Your task to perform on an android device: Add "razer kraken" to the cart on target, then select checkout. Image 0: 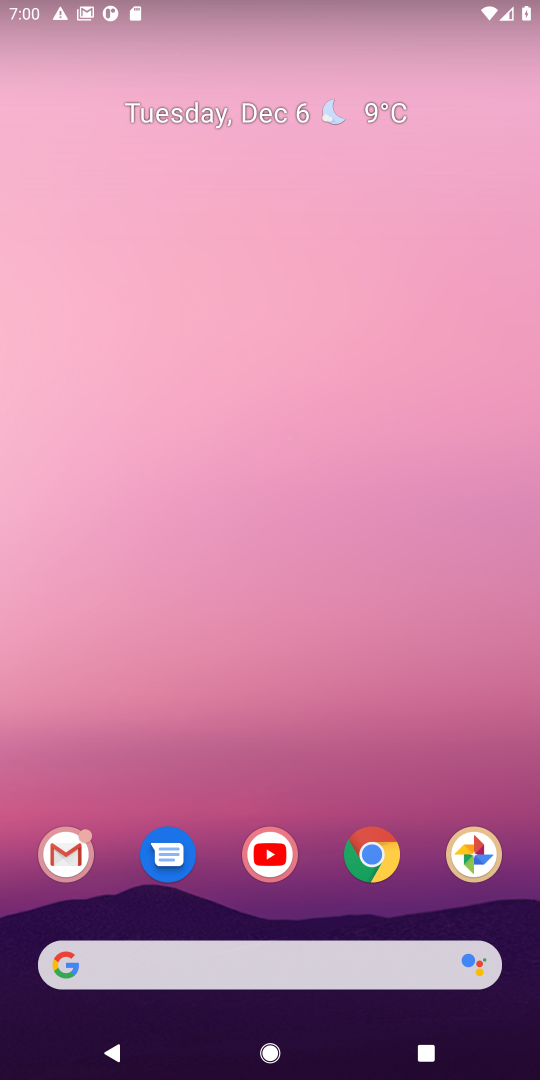
Step 0: click (353, 858)
Your task to perform on an android device: Add "razer kraken" to the cart on target, then select checkout. Image 1: 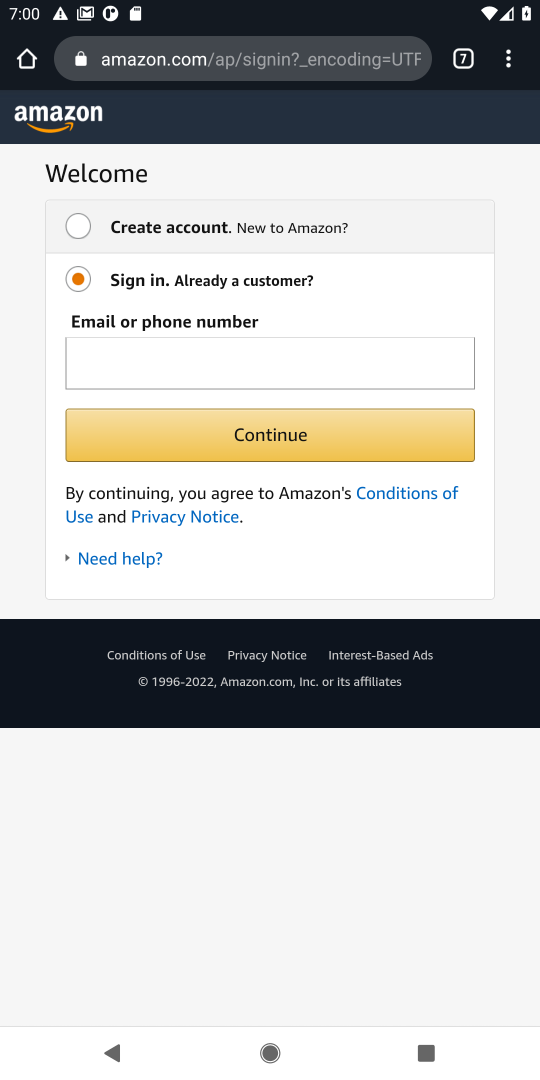
Step 1: click (469, 55)
Your task to perform on an android device: Add "razer kraken" to the cart on target, then select checkout. Image 2: 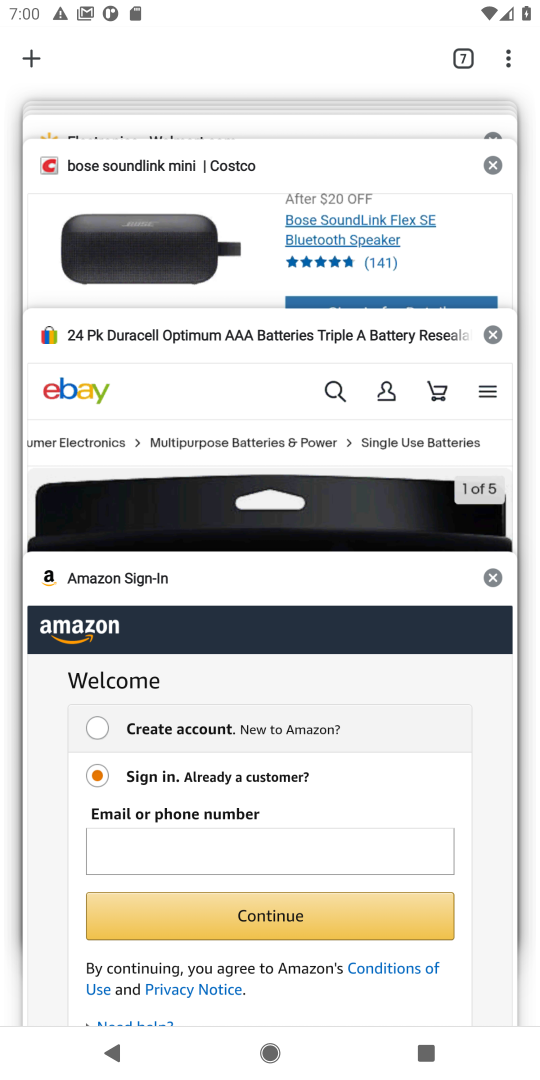
Step 2: drag from (185, 157) to (171, 384)
Your task to perform on an android device: Add "razer kraken" to the cart on target, then select checkout. Image 3: 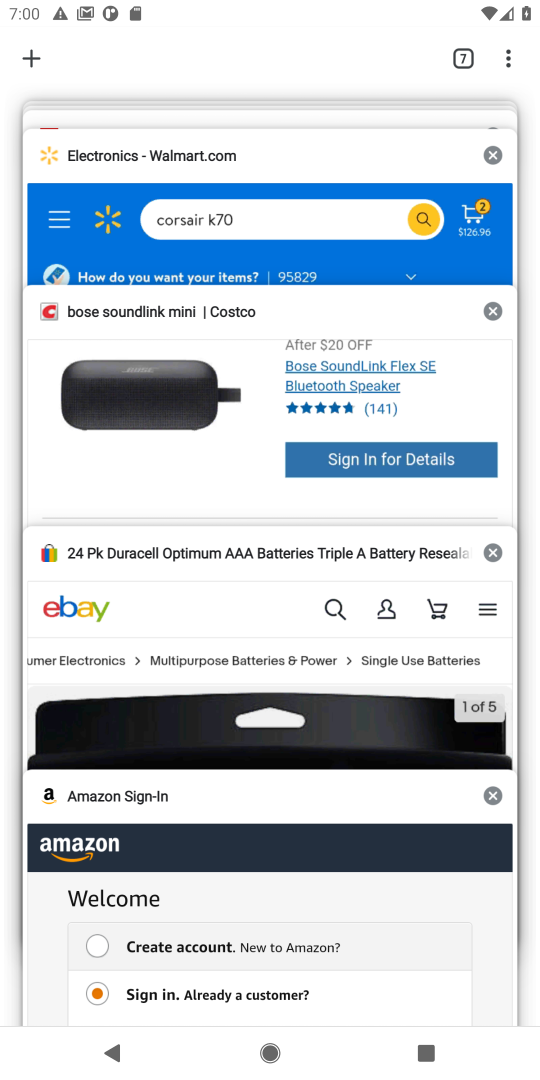
Step 3: drag from (217, 179) to (145, 450)
Your task to perform on an android device: Add "razer kraken" to the cart on target, then select checkout. Image 4: 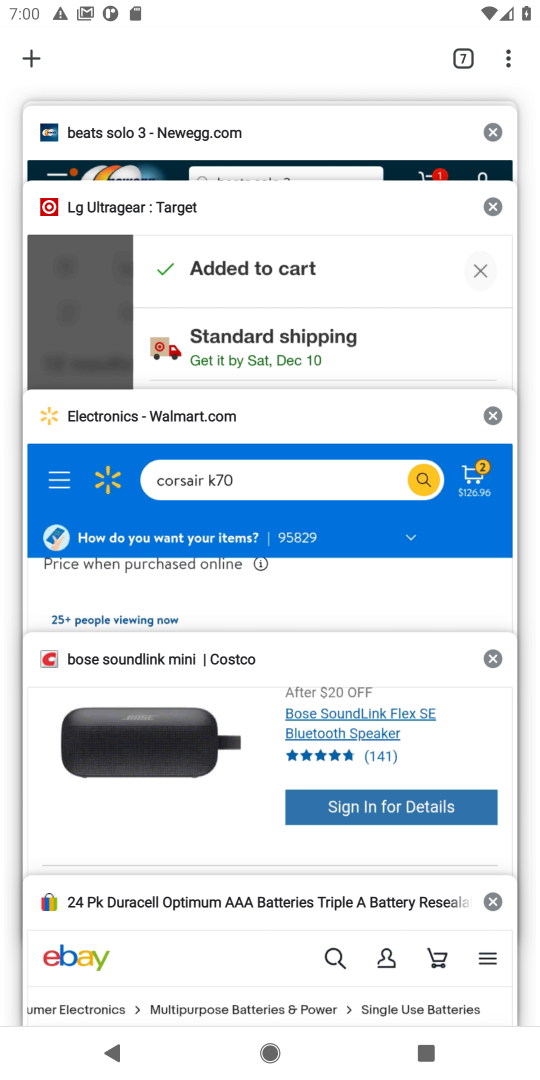
Step 4: click (169, 256)
Your task to perform on an android device: Add "razer kraken" to the cart on target, then select checkout. Image 5: 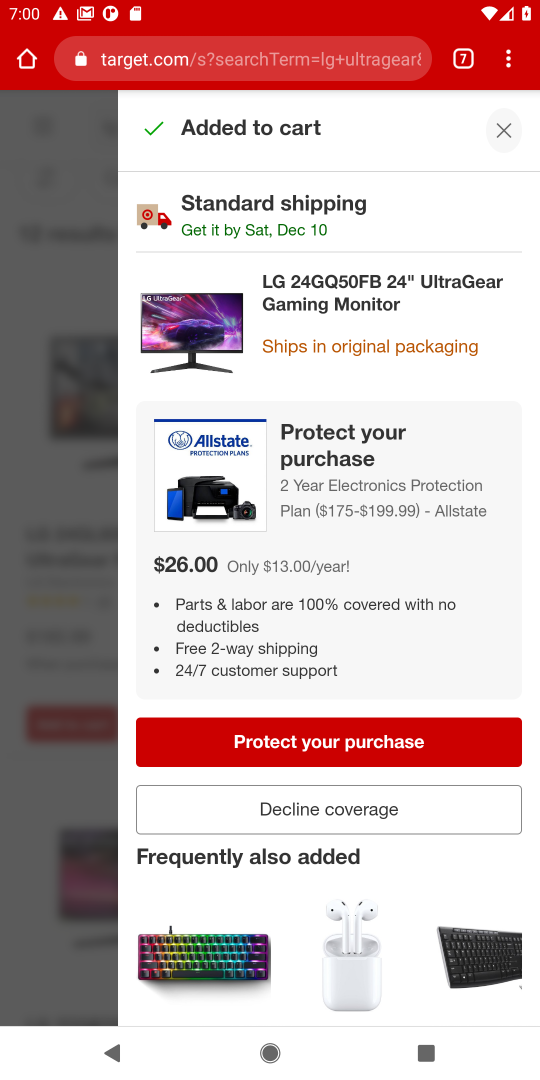
Step 5: click (504, 132)
Your task to perform on an android device: Add "razer kraken" to the cart on target, then select checkout. Image 6: 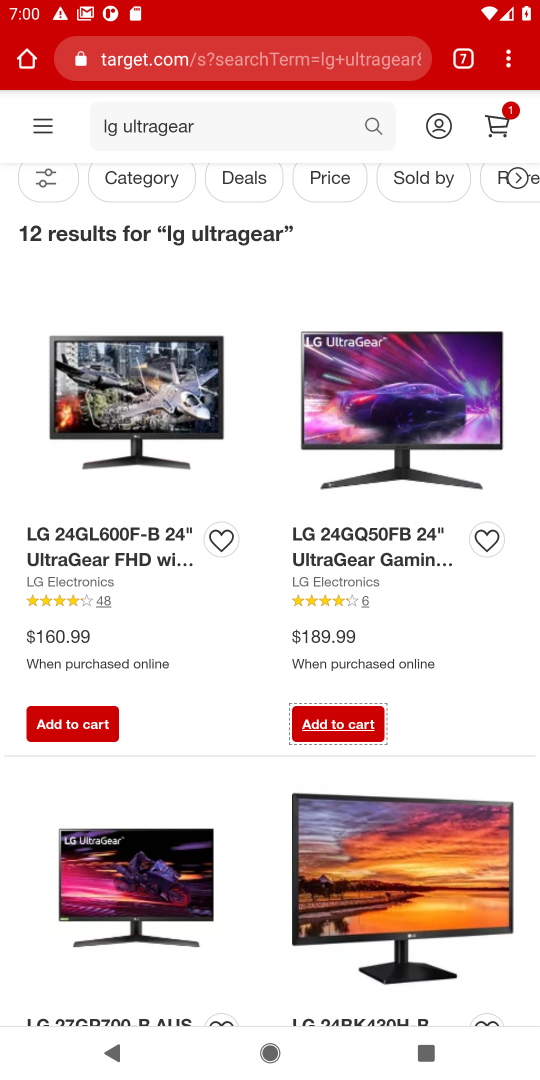
Step 6: click (277, 116)
Your task to perform on an android device: Add "razer kraken" to the cart on target, then select checkout. Image 7: 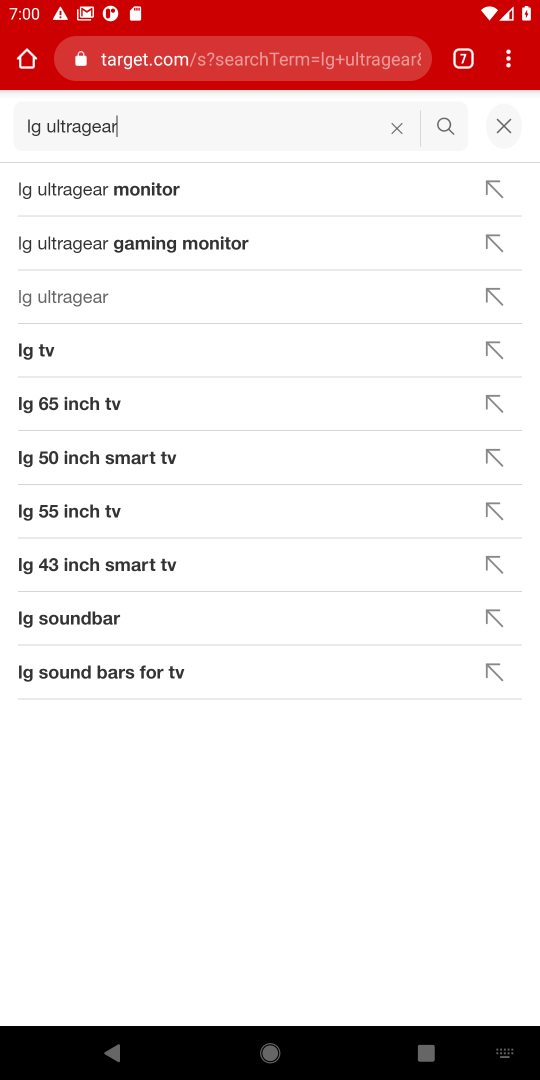
Step 7: click (403, 130)
Your task to perform on an android device: Add "razer kraken" to the cart on target, then select checkout. Image 8: 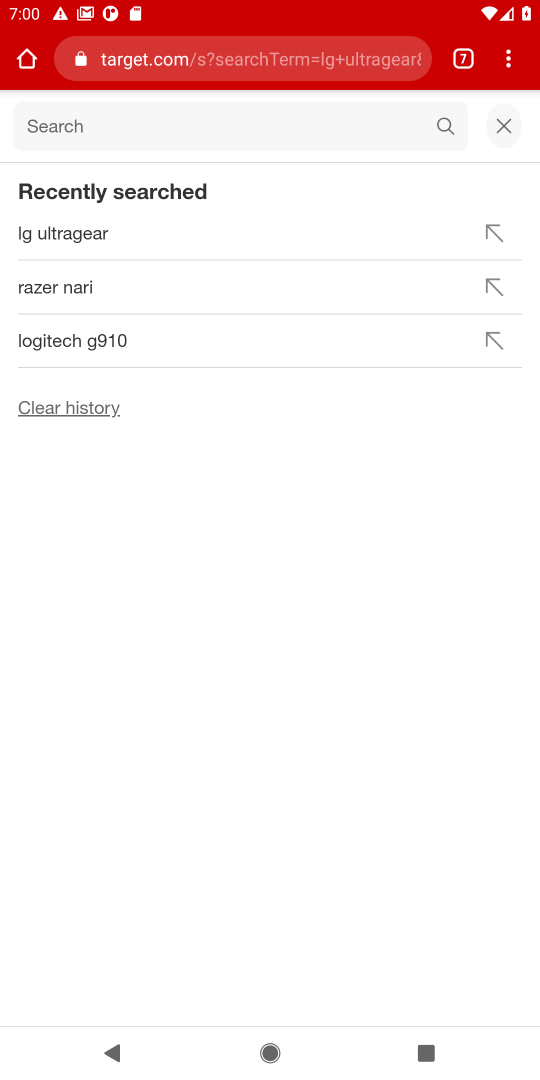
Step 8: type "razer kraken"
Your task to perform on an android device: Add "razer kraken" to the cart on target, then select checkout. Image 9: 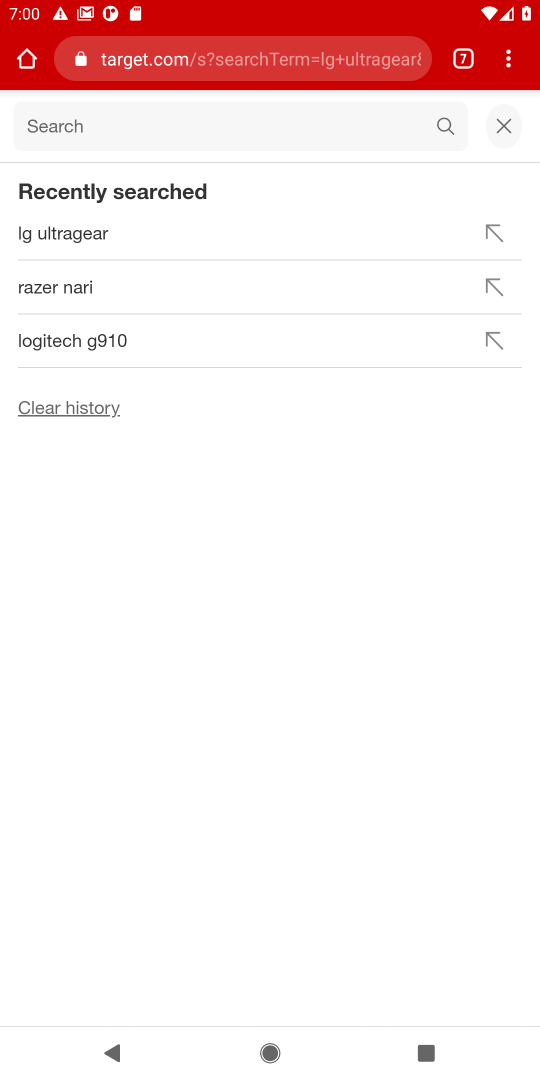
Step 9: click (208, 121)
Your task to perform on an android device: Add "razer kraken" to the cart on target, then select checkout. Image 10: 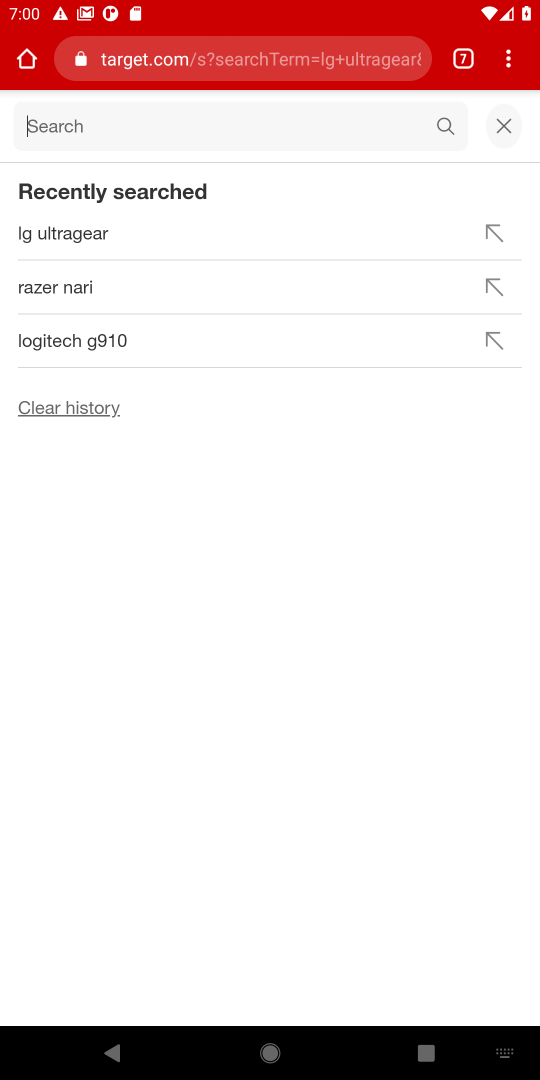
Step 10: type "razer kraken"
Your task to perform on an android device: Add "razer kraken" to the cart on target, then select checkout. Image 11: 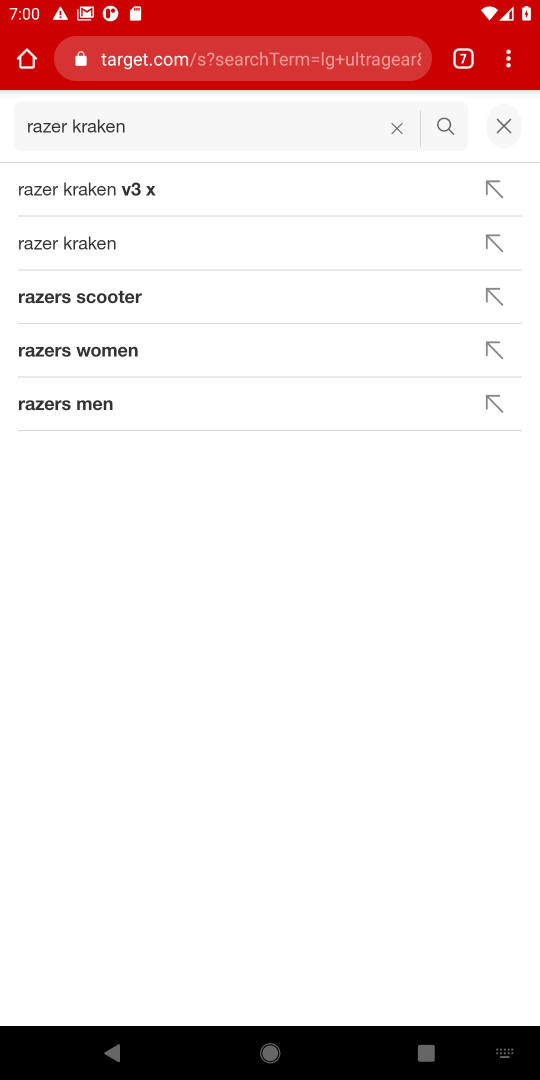
Step 11: click (88, 237)
Your task to perform on an android device: Add "razer kraken" to the cart on target, then select checkout. Image 12: 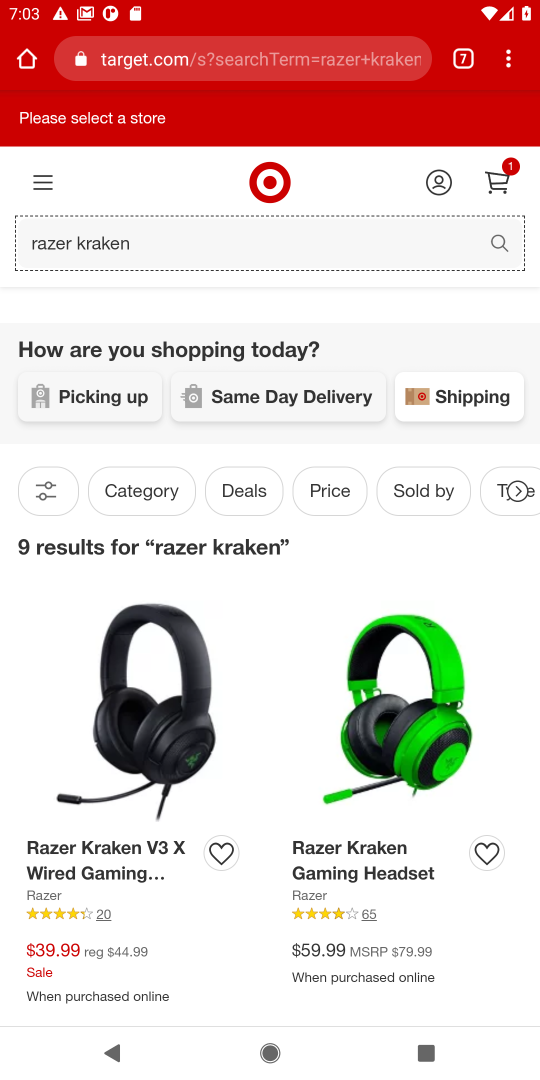
Step 12: click (137, 850)
Your task to perform on an android device: Add "razer kraken" to the cart on target, then select checkout. Image 13: 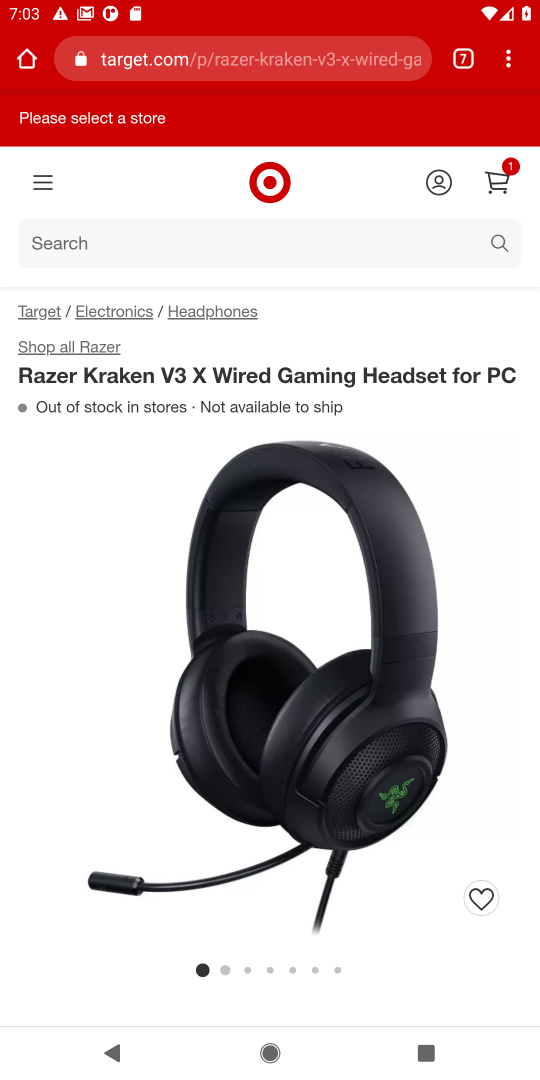
Step 13: drag from (339, 951) to (298, 139)
Your task to perform on an android device: Add "razer kraken" to the cart on target, then select checkout. Image 14: 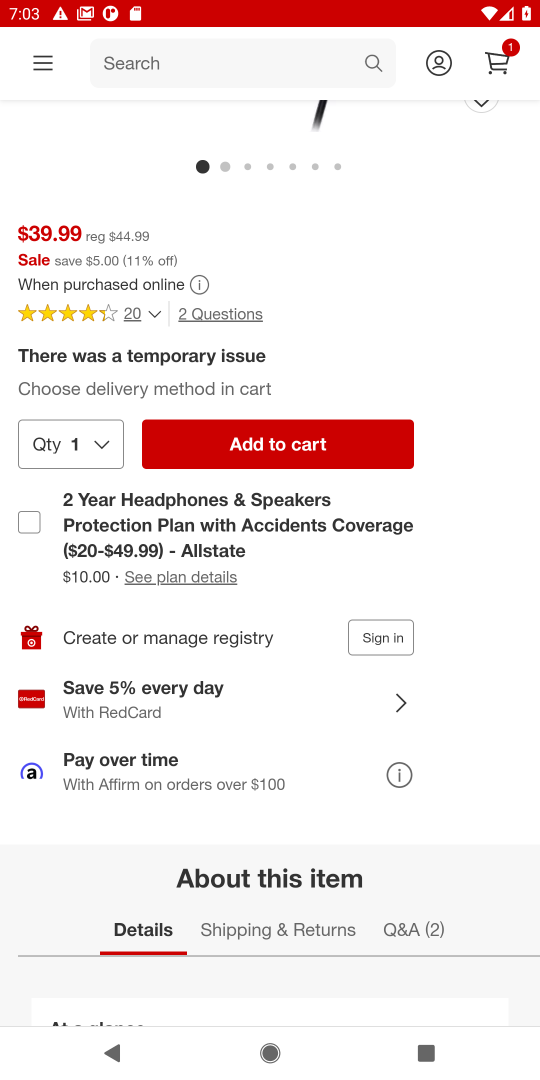
Step 14: click (286, 451)
Your task to perform on an android device: Add "razer kraken" to the cart on target, then select checkout. Image 15: 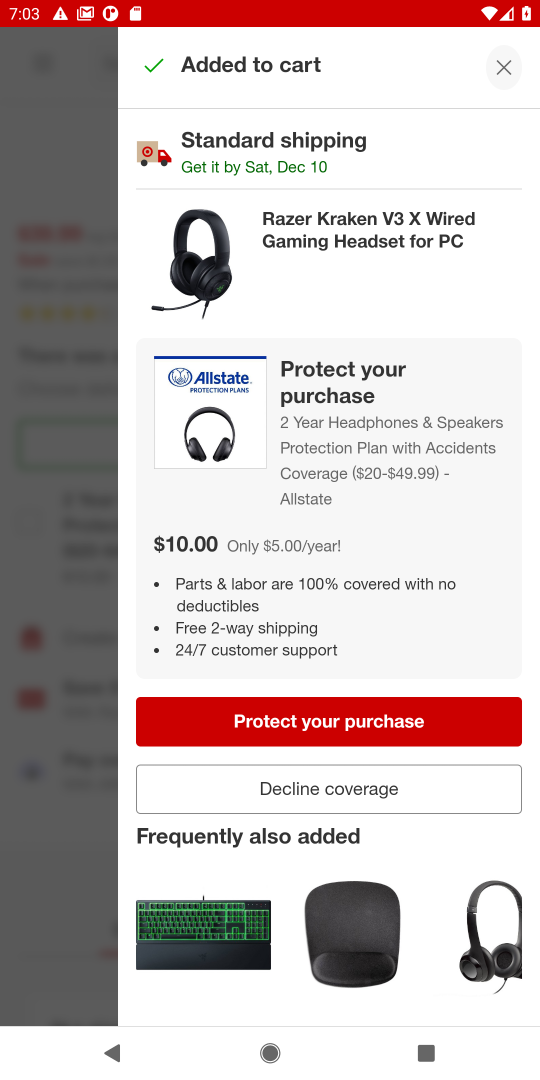
Step 15: click (358, 791)
Your task to perform on an android device: Add "razer kraken" to the cart on target, then select checkout. Image 16: 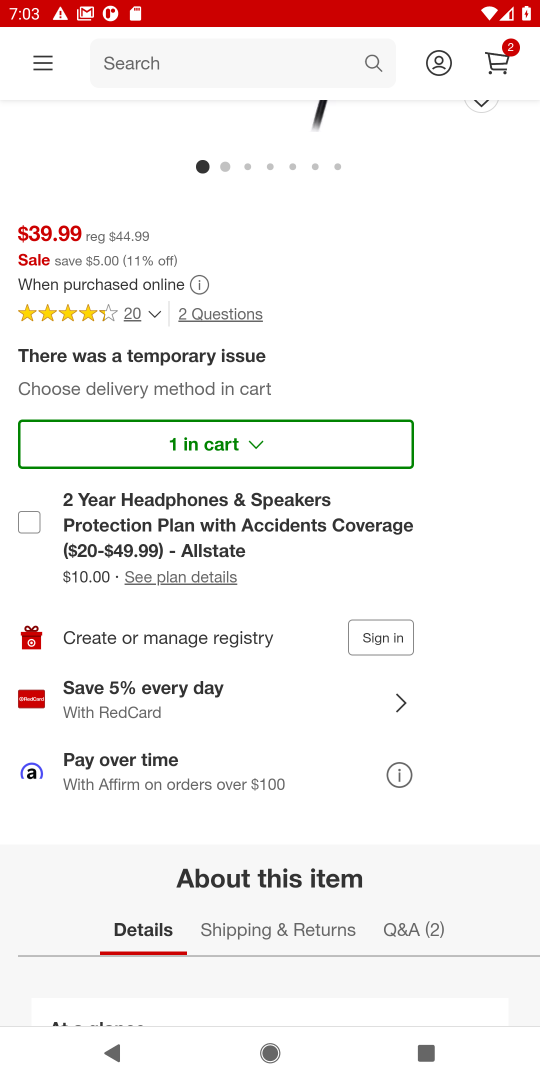
Step 16: click (510, 60)
Your task to perform on an android device: Add "razer kraken" to the cart on target, then select checkout. Image 17: 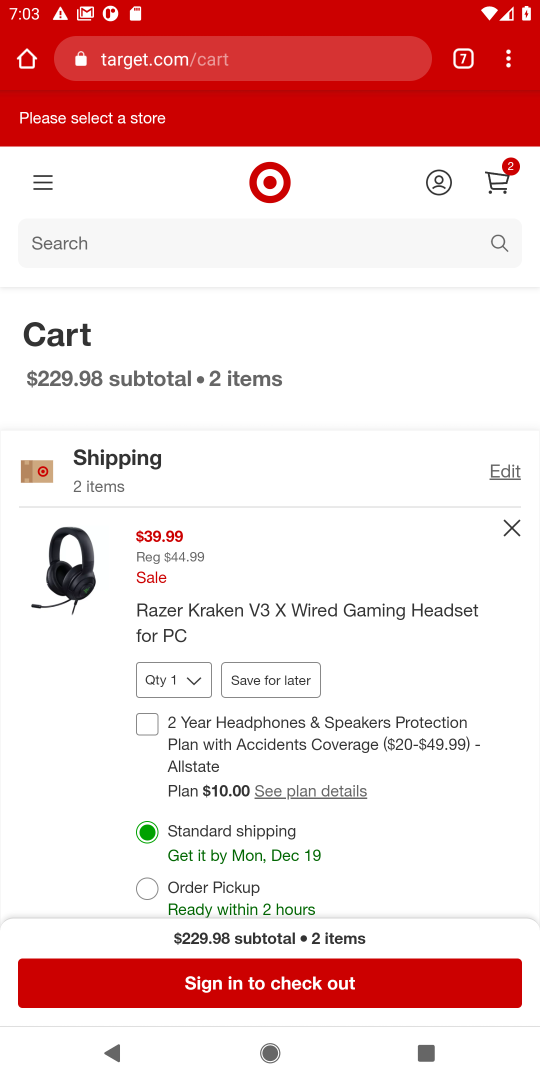
Step 17: click (247, 983)
Your task to perform on an android device: Add "razer kraken" to the cart on target, then select checkout. Image 18: 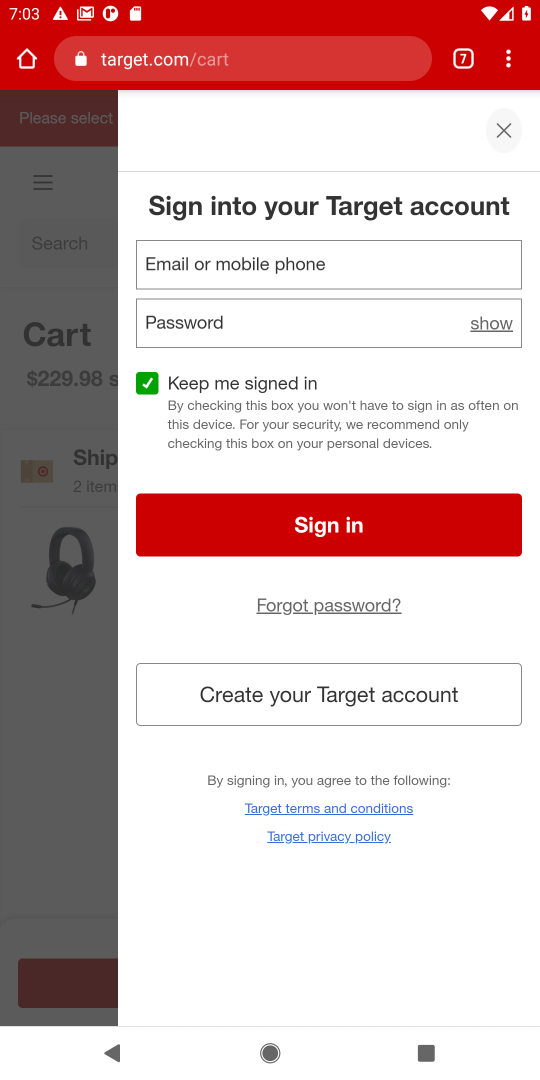
Step 18: task complete